Your task to perform on an android device: Open maps Image 0: 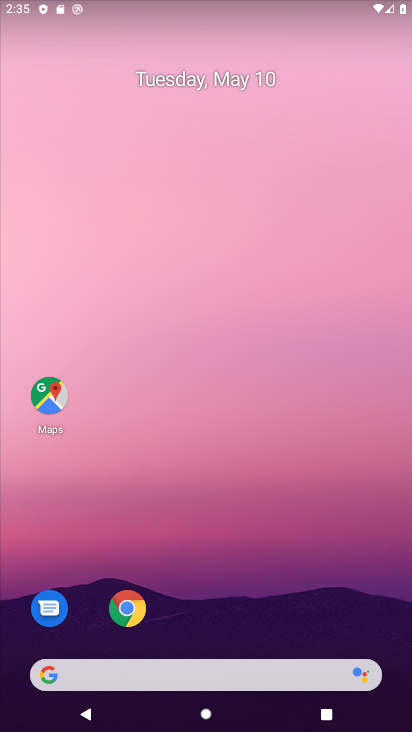
Step 0: click (49, 395)
Your task to perform on an android device: Open maps Image 1: 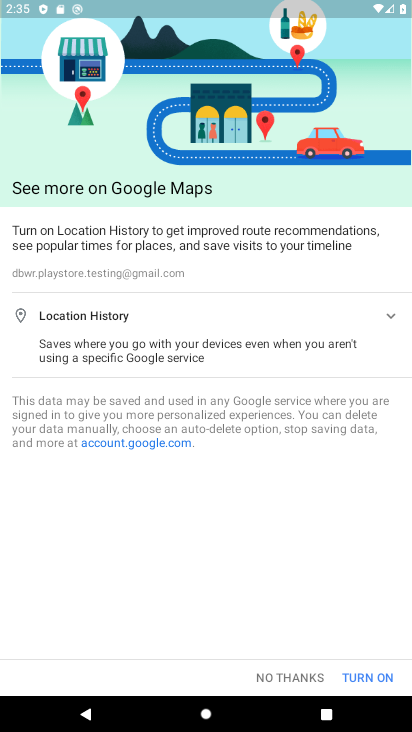
Step 1: click (286, 672)
Your task to perform on an android device: Open maps Image 2: 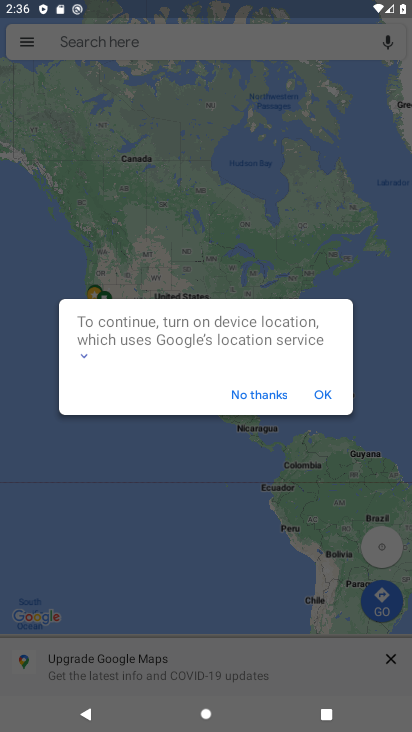
Step 2: click (318, 386)
Your task to perform on an android device: Open maps Image 3: 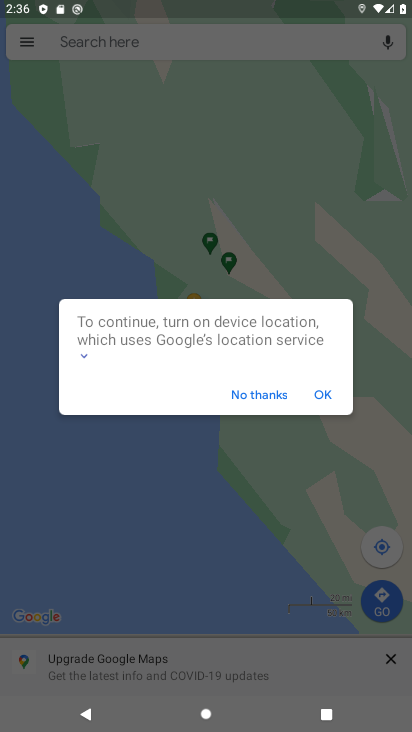
Step 3: click (328, 395)
Your task to perform on an android device: Open maps Image 4: 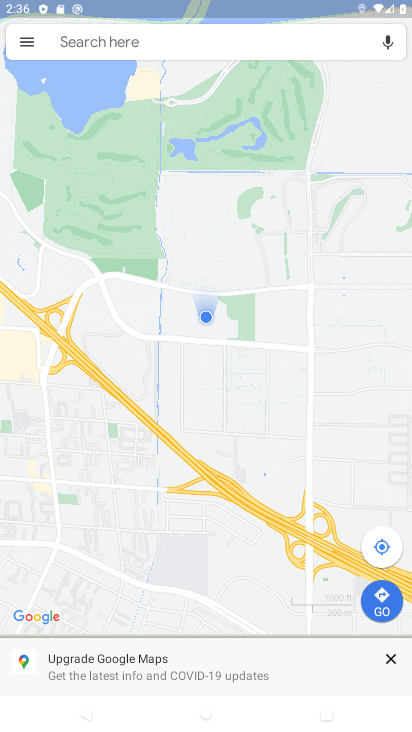
Step 4: task complete